Your task to perform on an android device: open the mobile data screen to see how much data has been used Image 0: 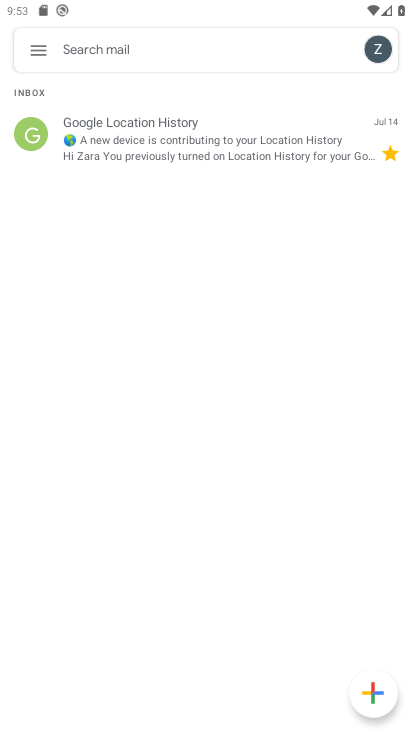
Step 0: press home button
Your task to perform on an android device: open the mobile data screen to see how much data has been used Image 1: 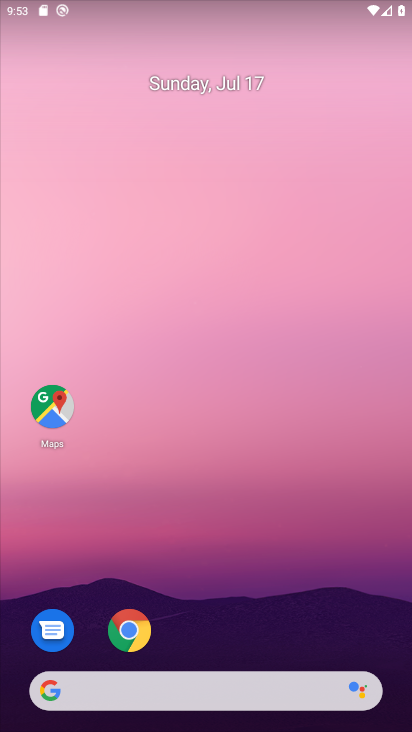
Step 1: drag from (274, 628) to (280, 339)
Your task to perform on an android device: open the mobile data screen to see how much data has been used Image 2: 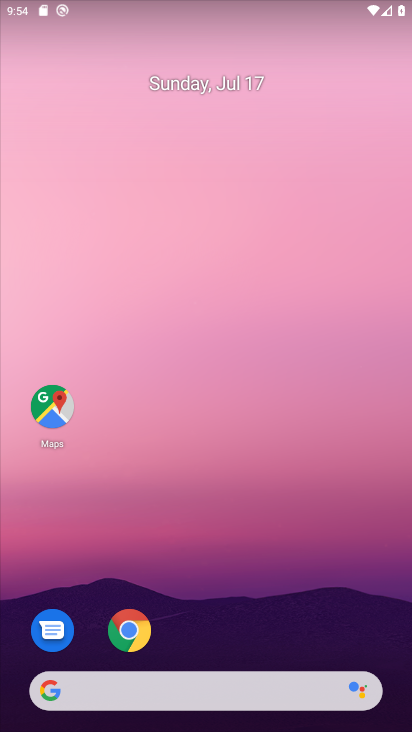
Step 2: drag from (216, 645) to (230, 27)
Your task to perform on an android device: open the mobile data screen to see how much data has been used Image 3: 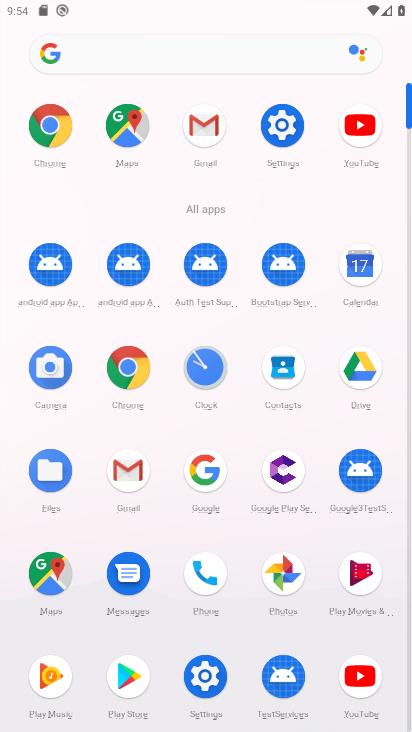
Step 3: click (209, 676)
Your task to perform on an android device: open the mobile data screen to see how much data has been used Image 4: 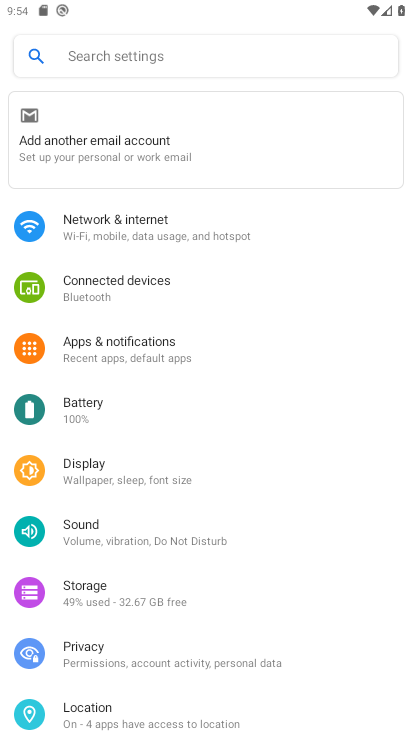
Step 4: click (168, 227)
Your task to perform on an android device: open the mobile data screen to see how much data has been used Image 5: 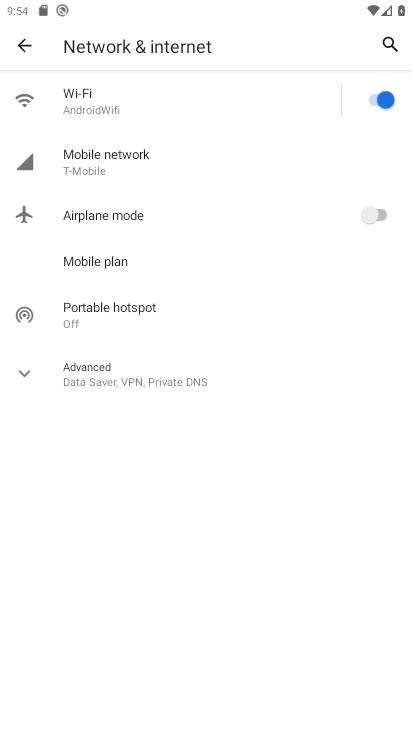
Step 5: click (111, 170)
Your task to perform on an android device: open the mobile data screen to see how much data has been used Image 6: 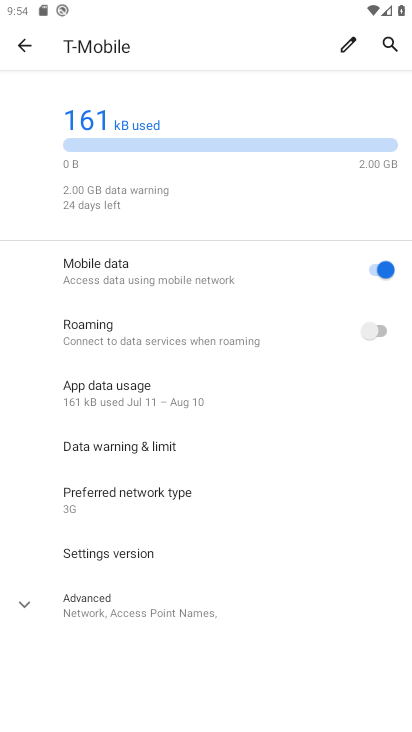
Step 6: click (175, 398)
Your task to perform on an android device: open the mobile data screen to see how much data has been used Image 7: 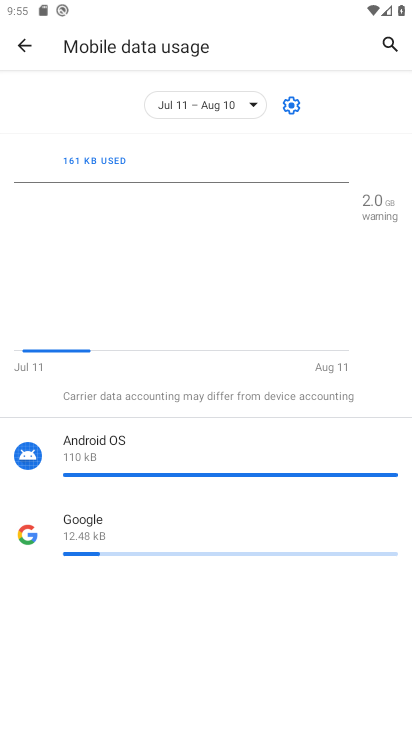
Step 7: task complete